Your task to perform on an android device: change the clock style Image 0: 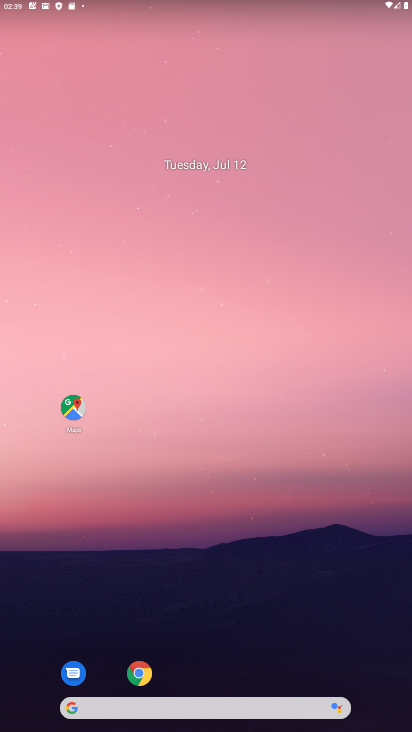
Step 0: press home button
Your task to perform on an android device: change the clock style Image 1: 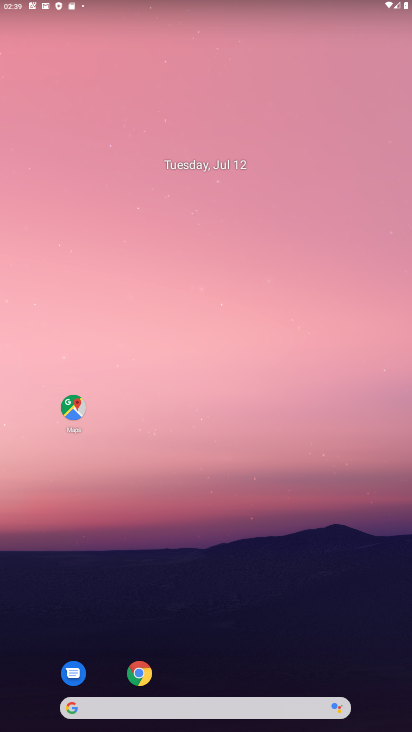
Step 1: drag from (226, 599) to (248, 34)
Your task to perform on an android device: change the clock style Image 2: 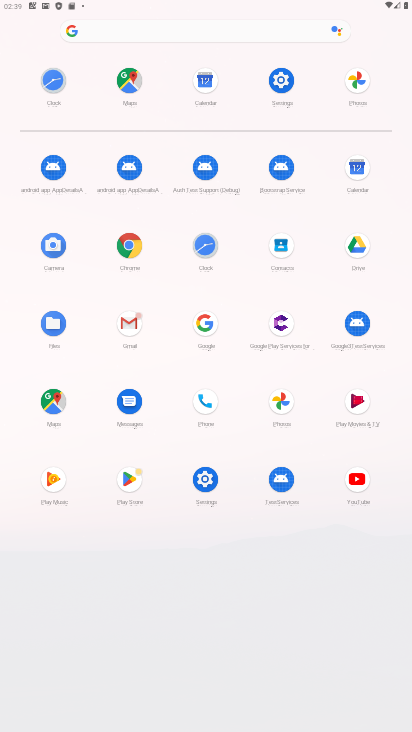
Step 2: click (273, 76)
Your task to perform on an android device: change the clock style Image 3: 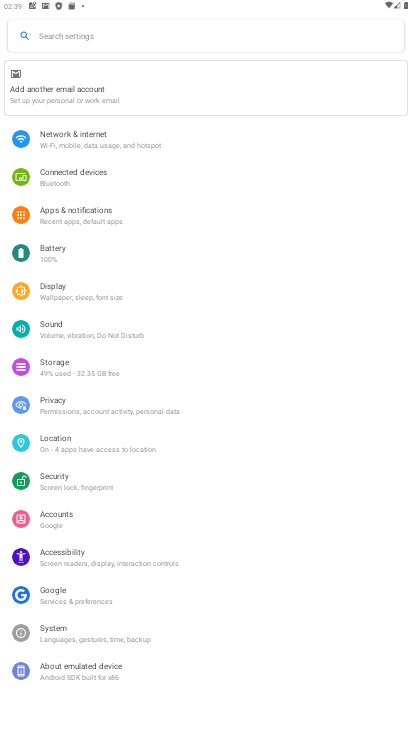
Step 3: press back button
Your task to perform on an android device: change the clock style Image 4: 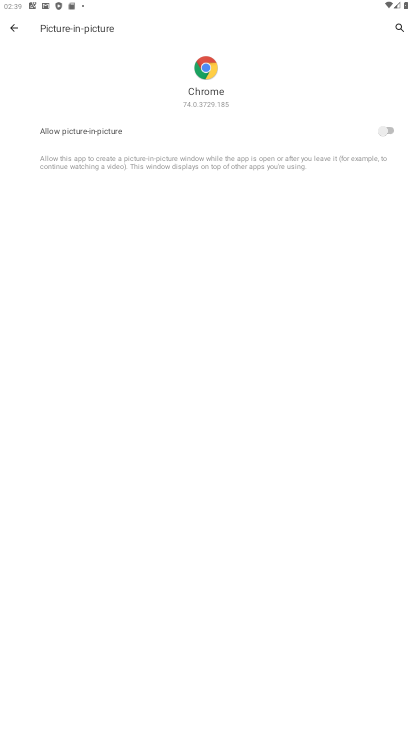
Step 4: press home button
Your task to perform on an android device: change the clock style Image 5: 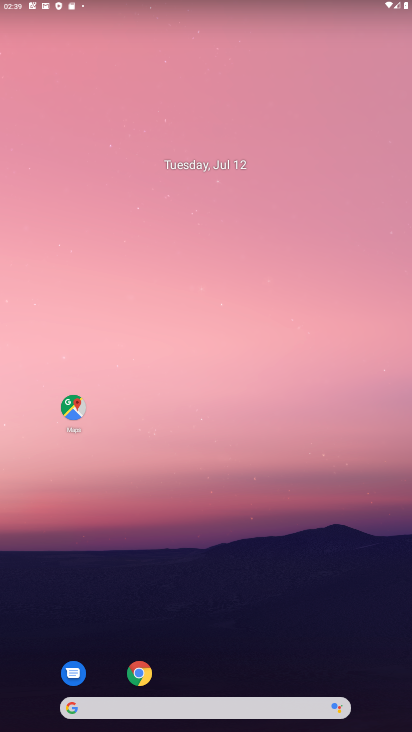
Step 5: drag from (253, 305) to (269, 130)
Your task to perform on an android device: change the clock style Image 6: 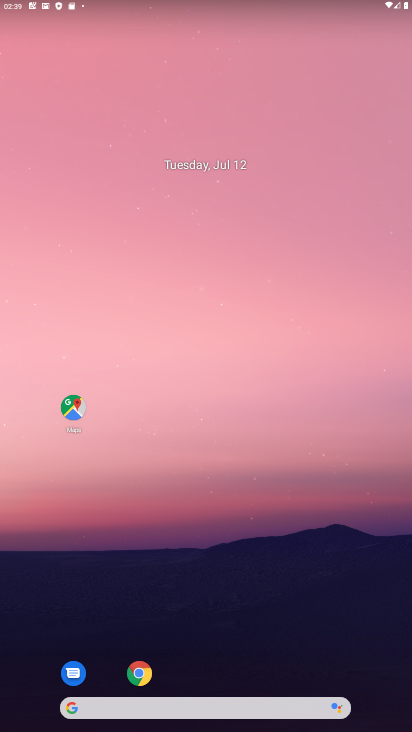
Step 6: drag from (251, 499) to (397, 13)
Your task to perform on an android device: change the clock style Image 7: 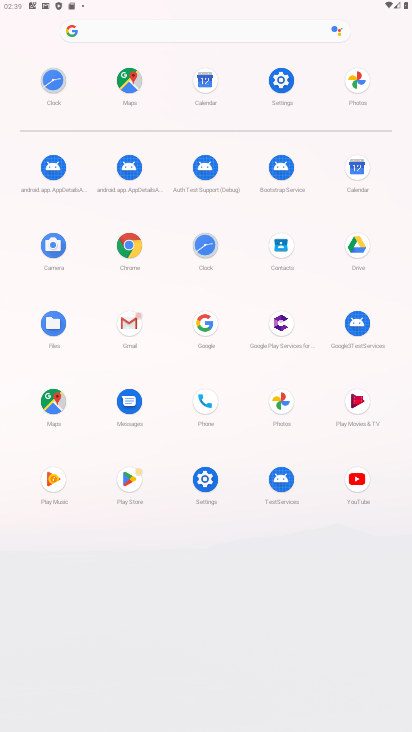
Step 7: click (207, 250)
Your task to perform on an android device: change the clock style Image 8: 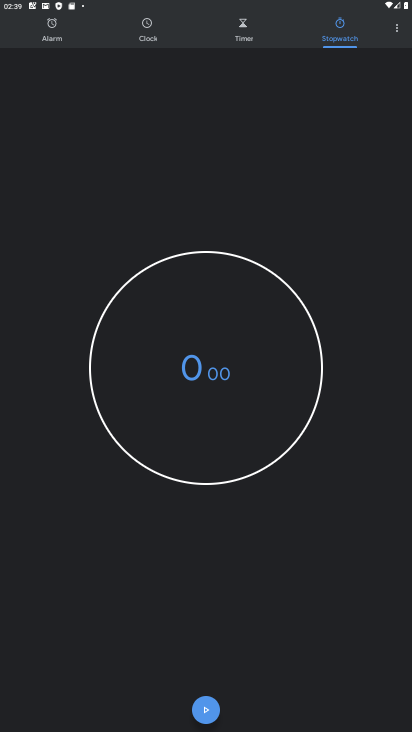
Step 8: click (396, 28)
Your task to perform on an android device: change the clock style Image 9: 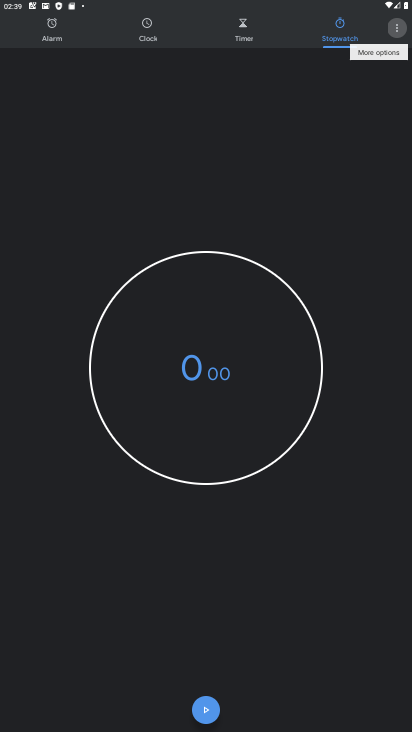
Step 9: click (398, 34)
Your task to perform on an android device: change the clock style Image 10: 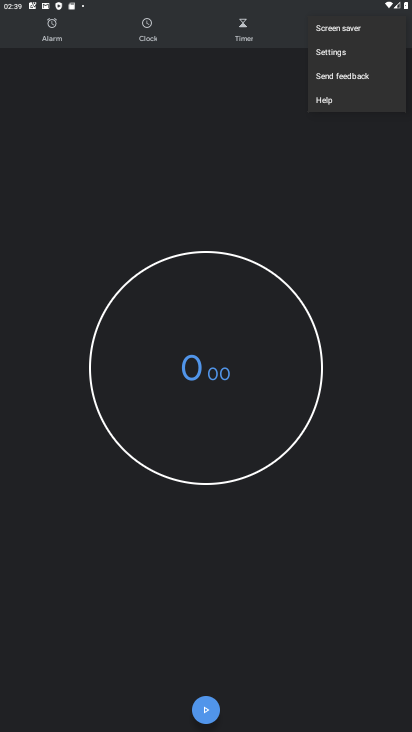
Step 10: click (356, 56)
Your task to perform on an android device: change the clock style Image 11: 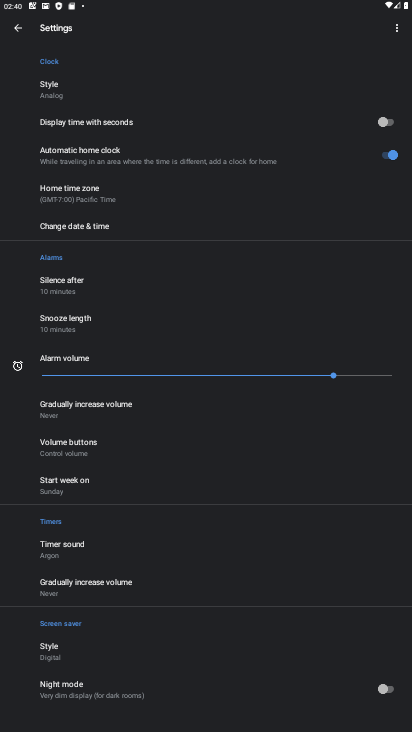
Step 11: click (56, 85)
Your task to perform on an android device: change the clock style Image 12: 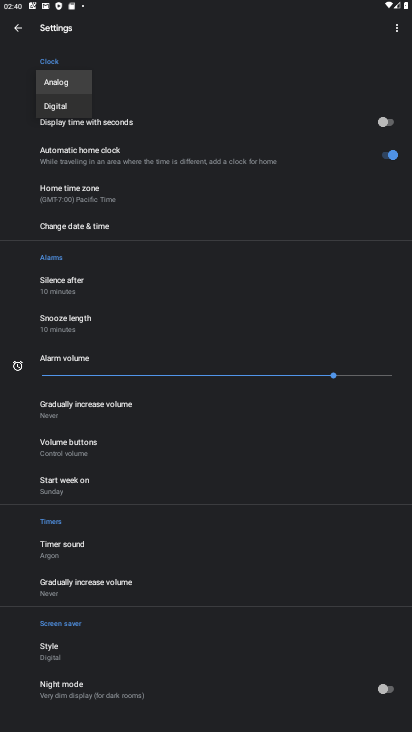
Step 12: click (57, 76)
Your task to perform on an android device: change the clock style Image 13: 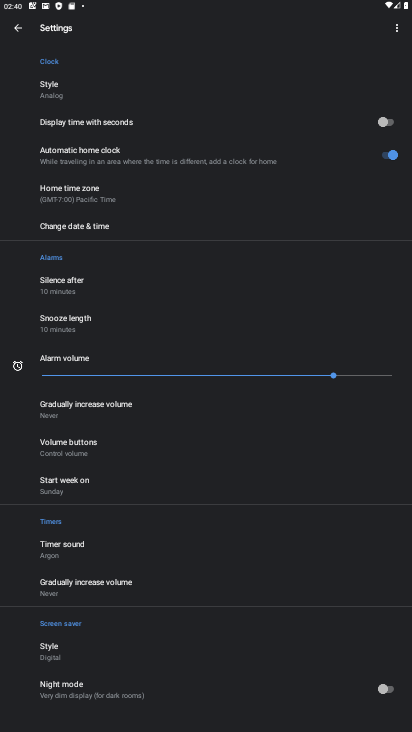
Step 13: click (56, 90)
Your task to perform on an android device: change the clock style Image 14: 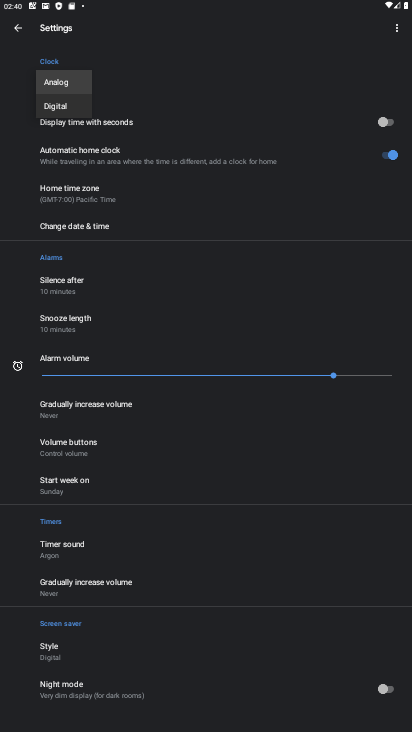
Step 14: click (52, 104)
Your task to perform on an android device: change the clock style Image 15: 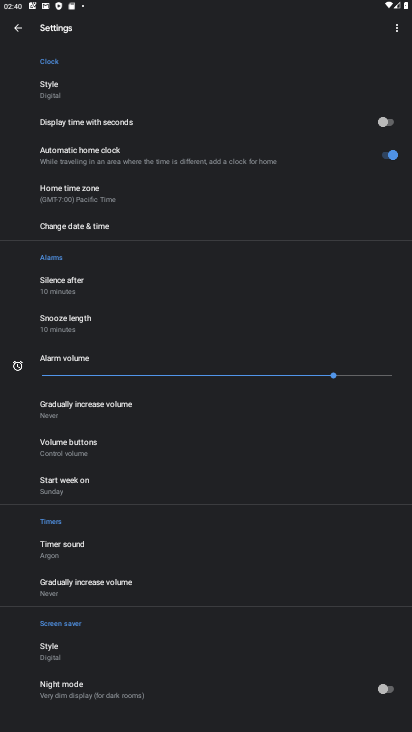
Step 15: task complete